Your task to perform on an android device: Open settings Image 0: 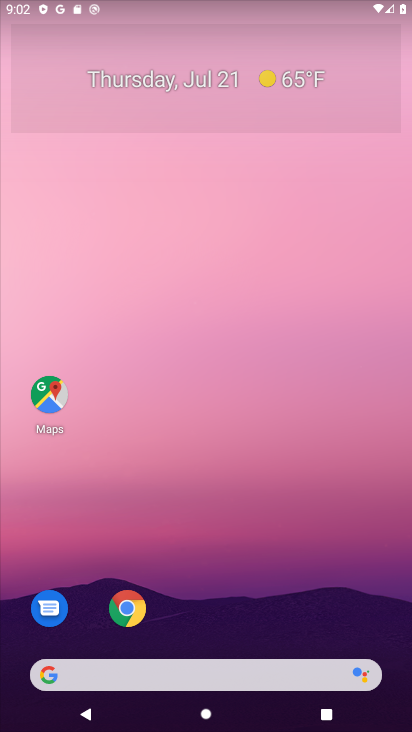
Step 0: drag from (262, 601) to (239, 348)
Your task to perform on an android device: Open settings Image 1: 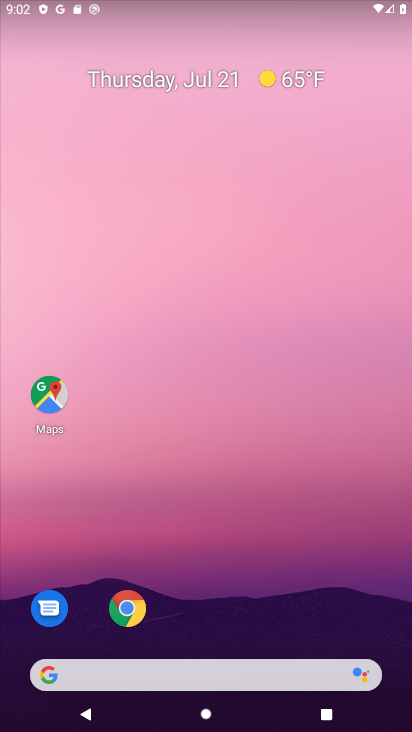
Step 1: drag from (256, 591) to (235, 199)
Your task to perform on an android device: Open settings Image 2: 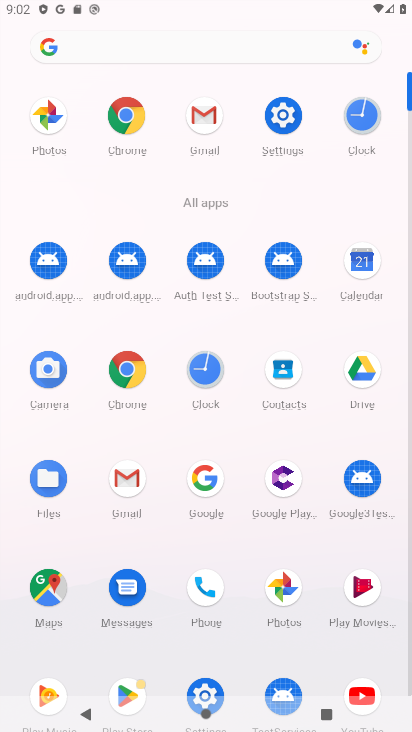
Step 2: click (277, 120)
Your task to perform on an android device: Open settings Image 3: 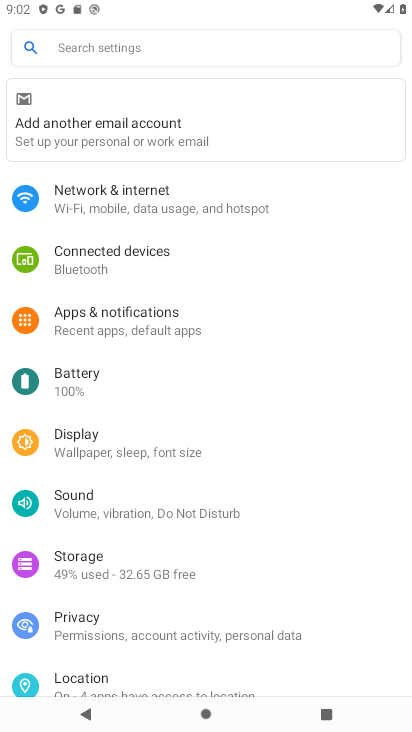
Step 3: task complete